Your task to perform on an android device: Show me popular videos on Youtube Image 0: 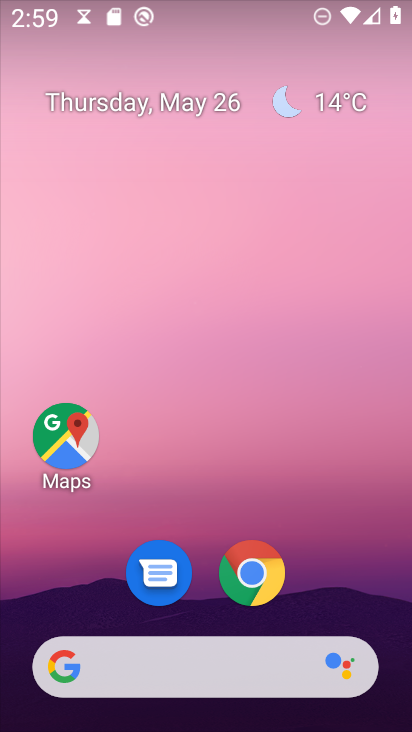
Step 0: drag from (314, 485) to (196, 41)
Your task to perform on an android device: Show me popular videos on Youtube Image 1: 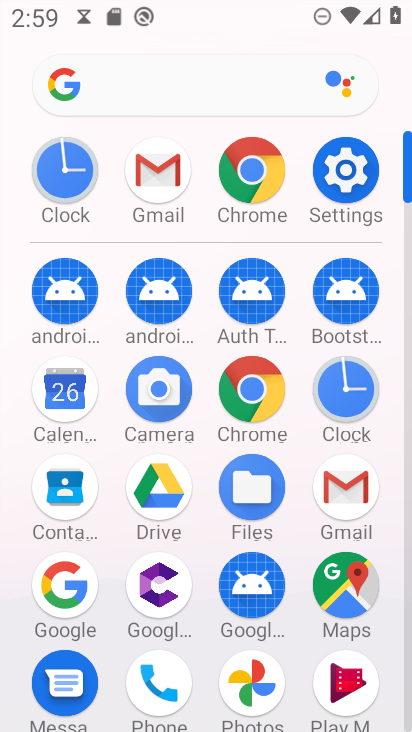
Step 1: drag from (18, 622) to (8, 294)
Your task to perform on an android device: Show me popular videos on Youtube Image 2: 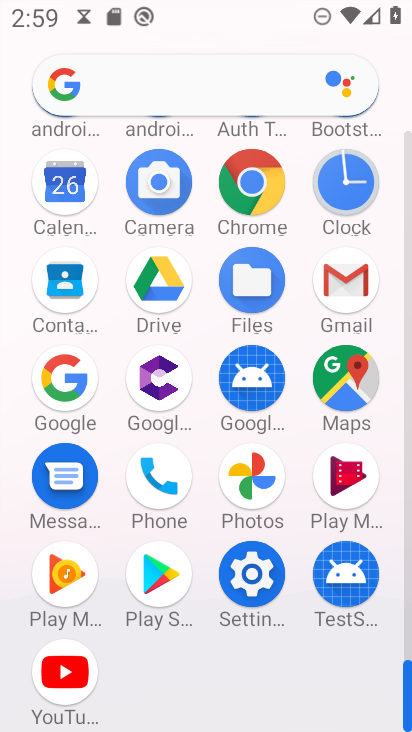
Step 2: click (63, 674)
Your task to perform on an android device: Show me popular videos on Youtube Image 3: 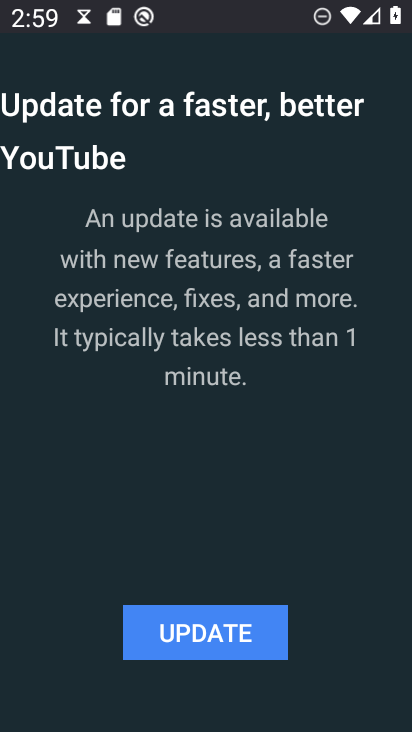
Step 3: click (219, 631)
Your task to perform on an android device: Show me popular videos on Youtube Image 4: 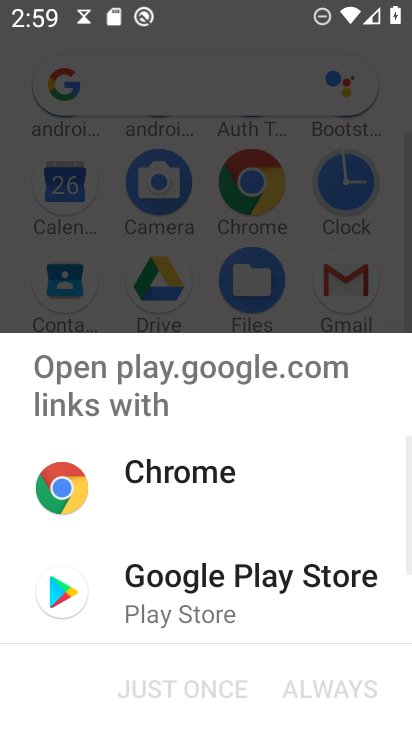
Step 4: click (232, 588)
Your task to perform on an android device: Show me popular videos on Youtube Image 5: 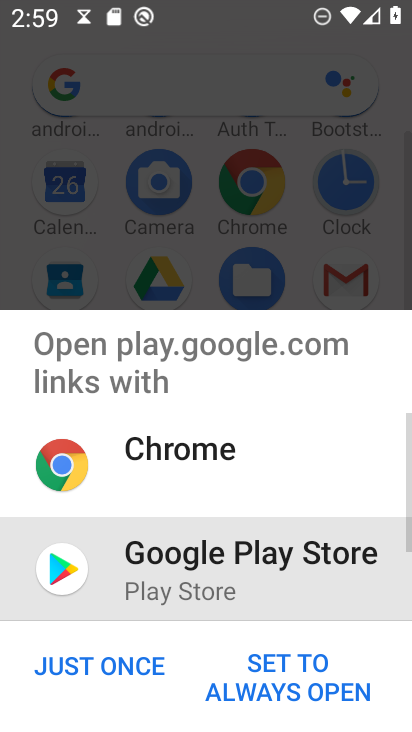
Step 5: click (108, 659)
Your task to perform on an android device: Show me popular videos on Youtube Image 6: 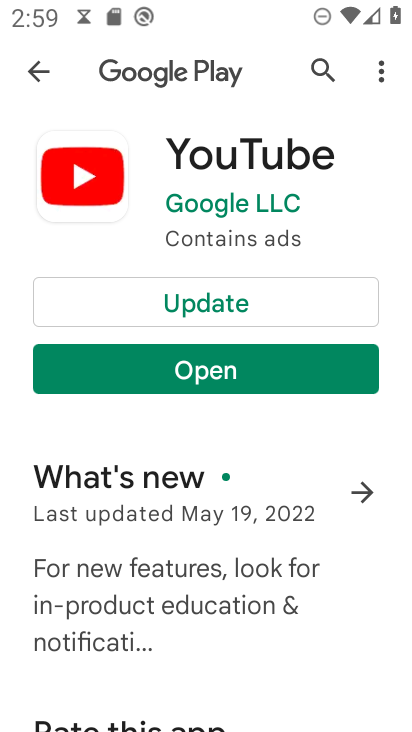
Step 6: click (204, 298)
Your task to perform on an android device: Show me popular videos on Youtube Image 7: 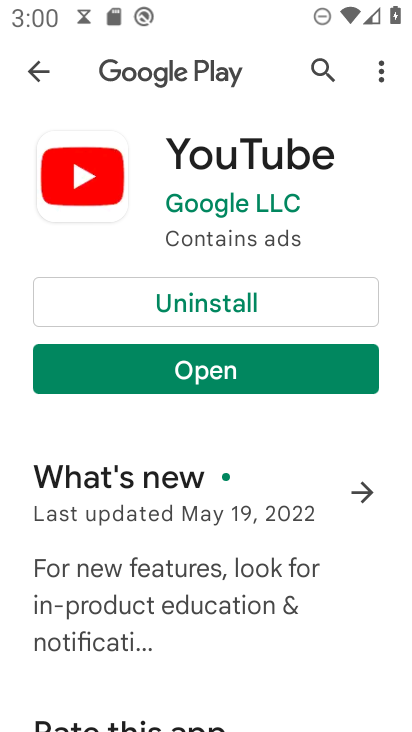
Step 7: click (109, 376)
Your task to perform on an android device: Show me popular videos on Youtube Image 8: 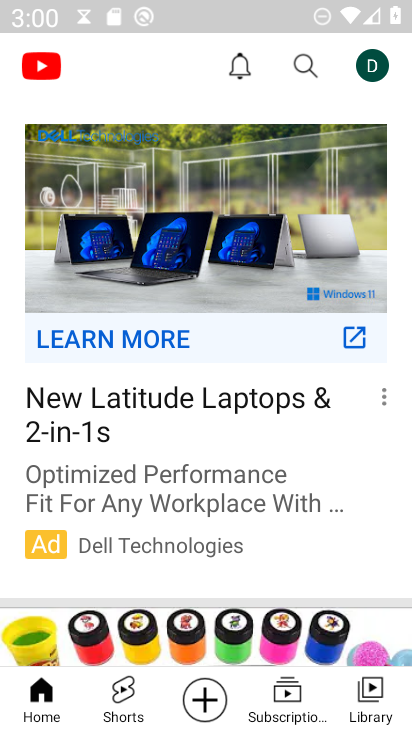
Step 8: drag from (243, 560) to (240, 198)
Your task to perform on an android device: Show me popular videos on Youtube Image 9: 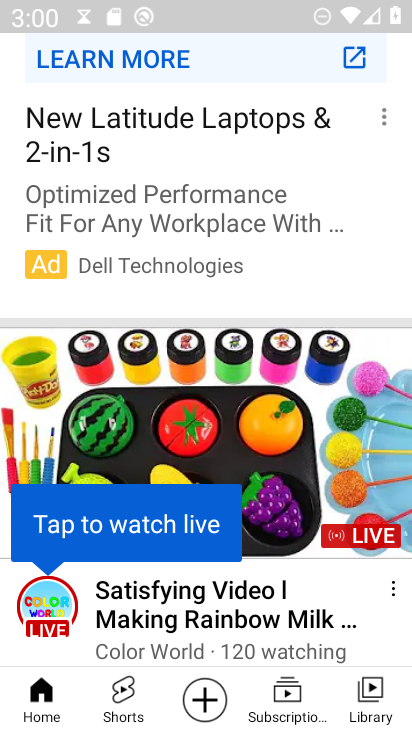
Step 9: click (374, 704)
Your task to perform on an android device: Show me popular videos on Youtube Image 10: 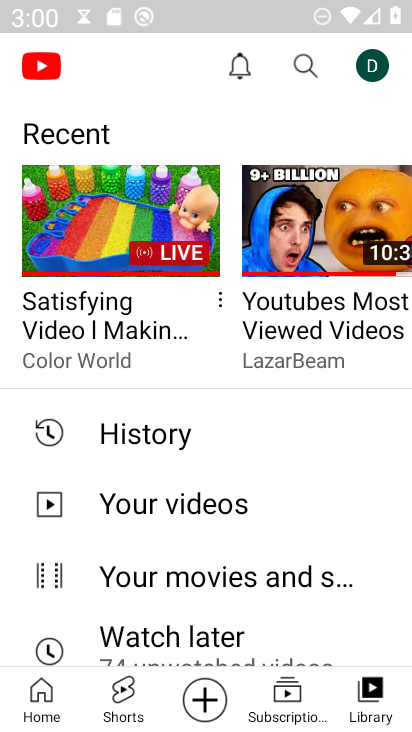
Step 10: click (33, 688)
Your task to perform on an android device: Show me popular videos on Youtube Image 11: 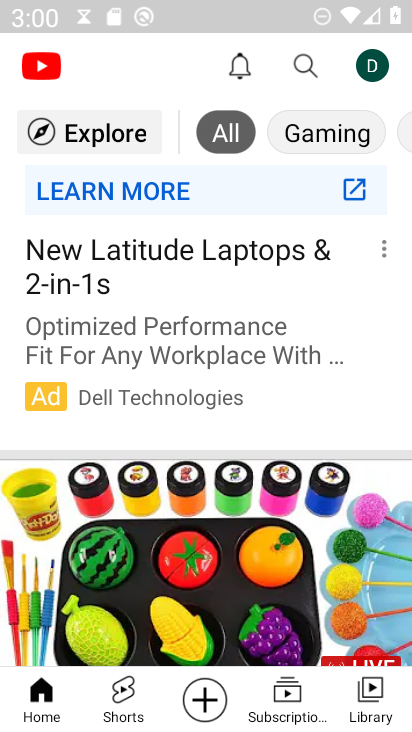
Step 11: click (101, 128)
Your task to perform on an android device: Show me popular videos on Youtube Image 12: 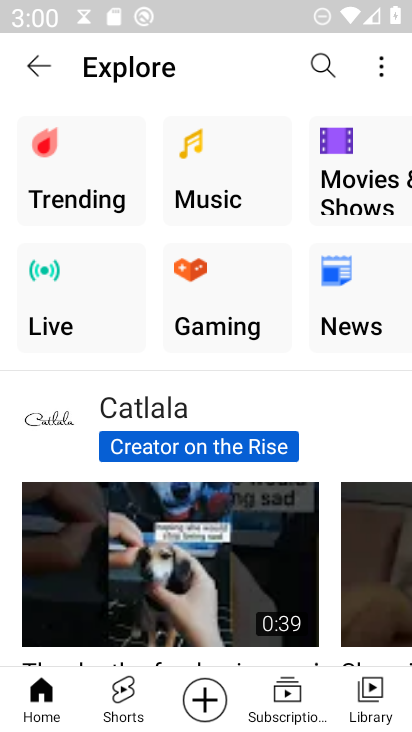
Step 12: drag from (200, 559) to (176, 155)
Your task to perform on an android device: Show me popular videos on Youtube Image 13: 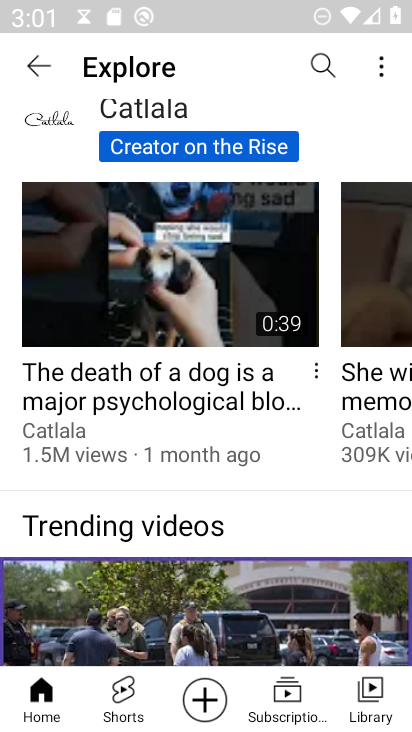
Step 13: drag from (164, 203) to (124, 572)
Your task to perform on an android device: Show me popular videos on Youtube Image 14: 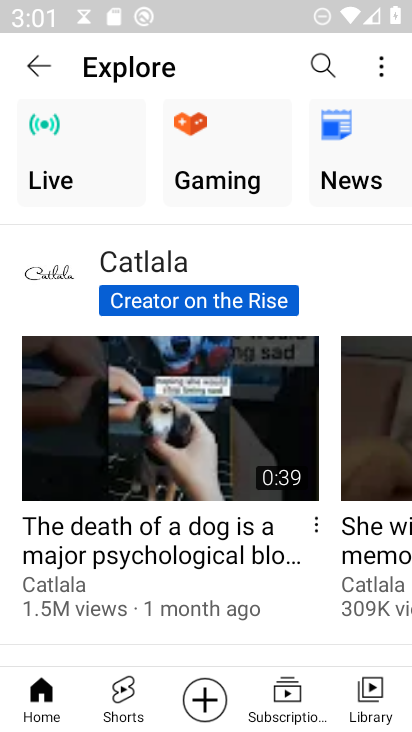
Step 14: drag from (81, 280) to (91, 551)
Your task to perform on an android device: Show me popular videos on Youtube Image 15: 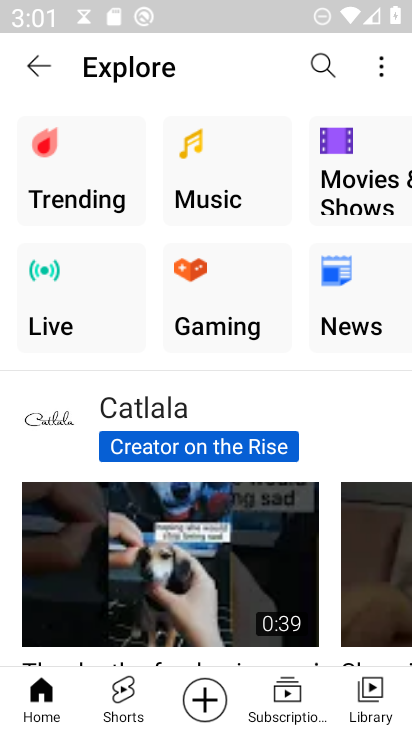
Step 15: click (71, 167)
Your task to perform on an android device: Show me popular videos on Youtube Image 16: 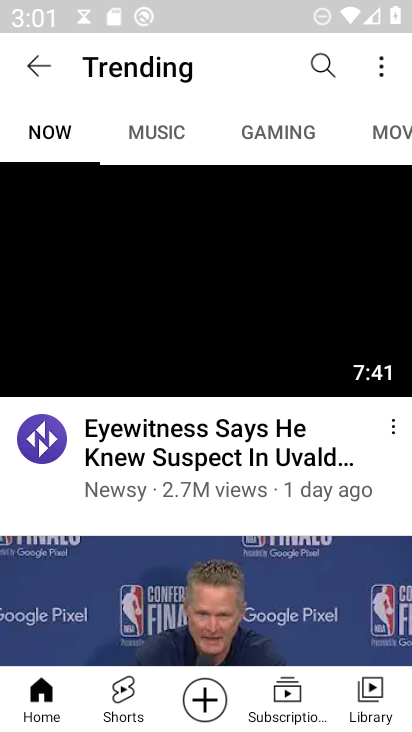
Step 16: task complete